Your task to perform on an android device: Clear the shopping cart on target.com. Search for "usb-a" on target.com, select the first entry, and add it to the cart. Image 0: 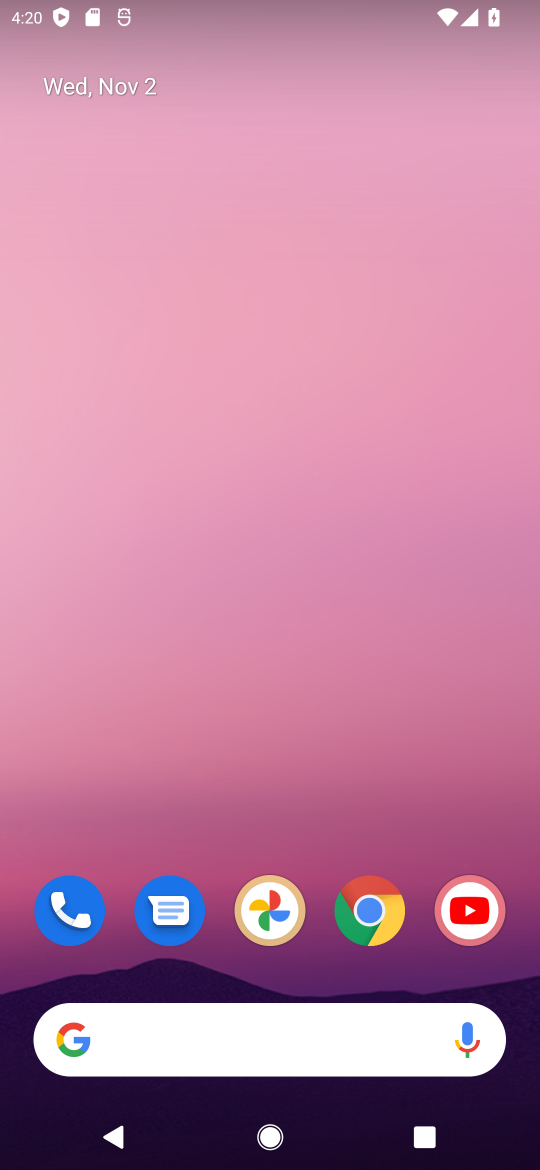
Step 0: click (371, 915)
Your task to perform on an android device: Clear the shopping cart on target.com. Search for "usb-a" on target.com, select the first entry, and add it to the cart. Image 1: 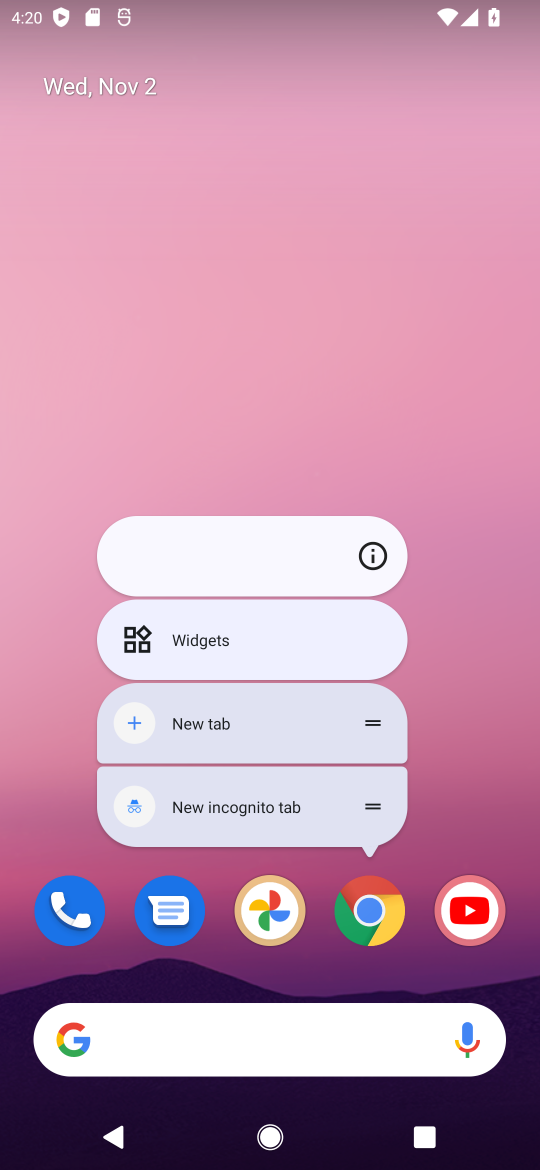
Step 1: click (373, 923)
Your task to perform on an android device: Clear the shopping cart on target.com. Search for "usb-a" on target.com, select the first entry, and add it to the cart. Image 2: 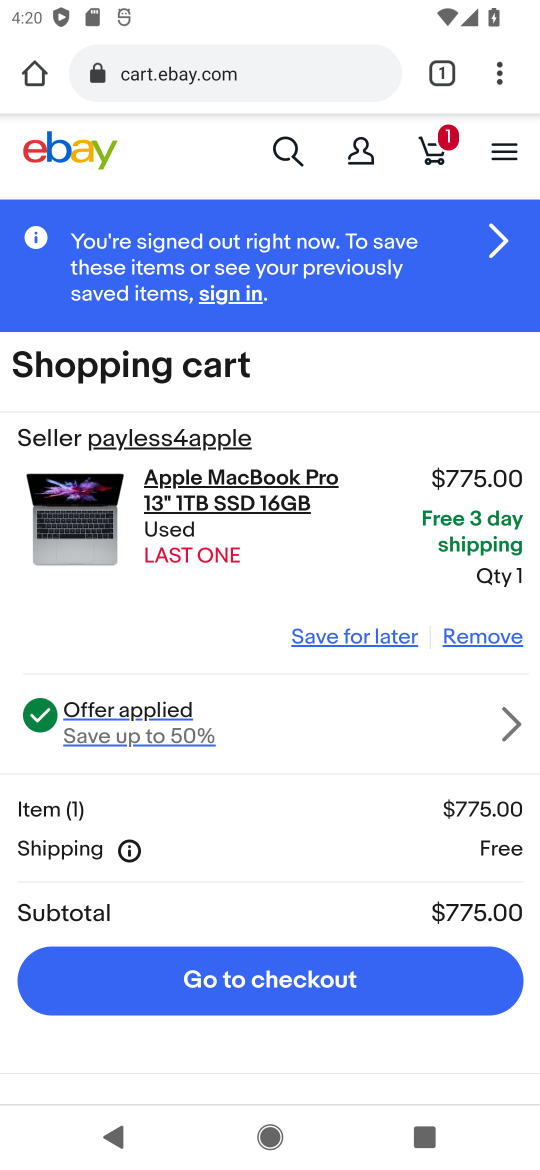
Step 2: click (299, 158)
Your task to perform on an android device: Clear the shopping cart on target.com. Search for "usb-a" on target.com, select the first entry, and add it to the cart. Image 3: 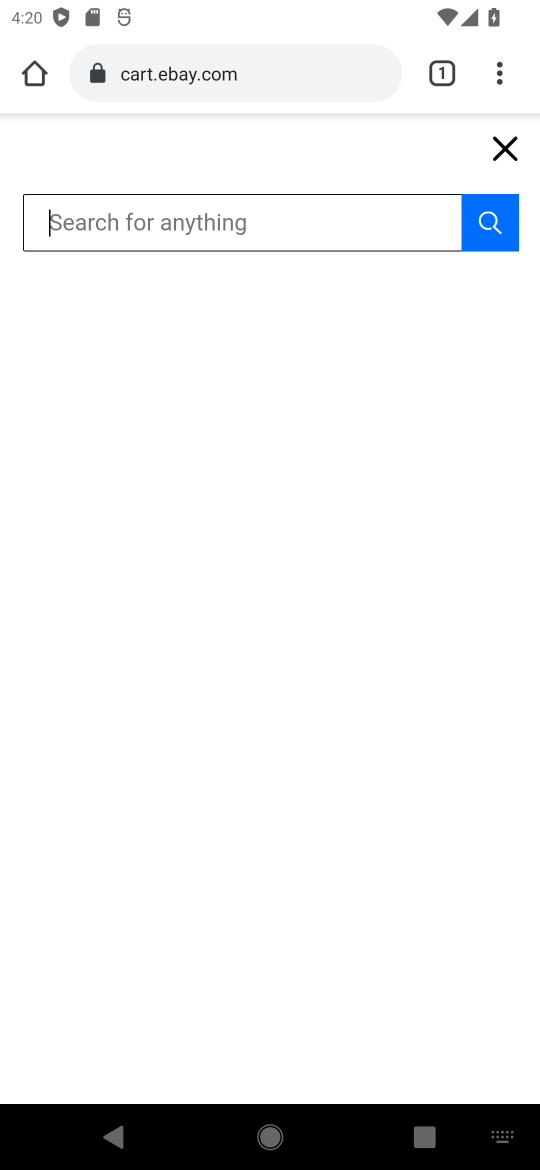
Step 3: type "target.com"
Your task to perform on an android device: Clear the shopping cart on target.com. Search for "usb-a" on target.com, select the first entry, and add it to the cart. Image 4: 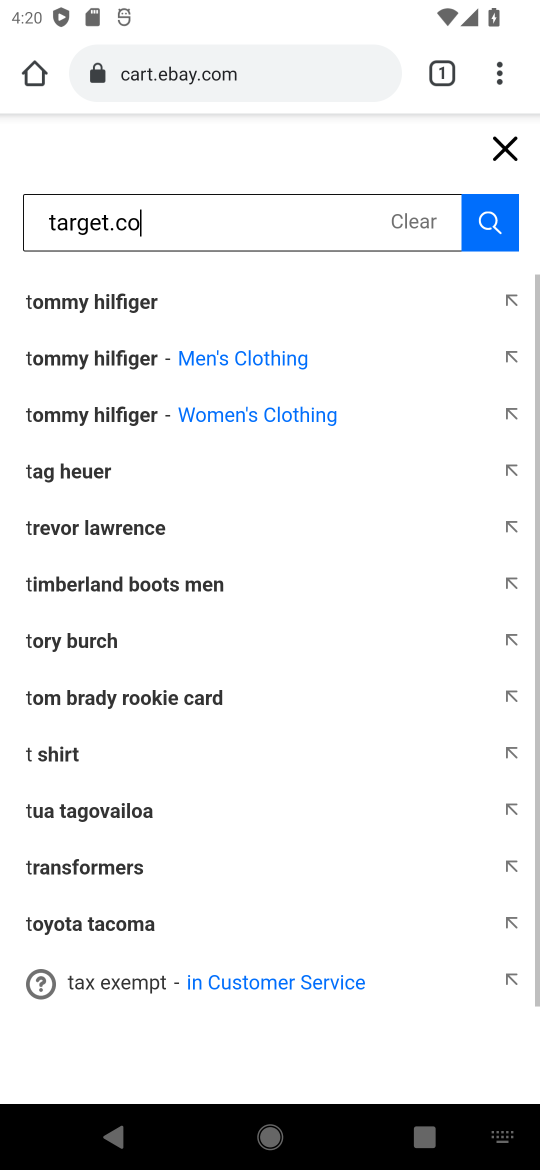
Step 4: type ""
Your task to perform on an android device: Clear the shopping cart on target.com. Search for "usb-a" on target.com, select the first entry, and add it to the cart. Image 5: 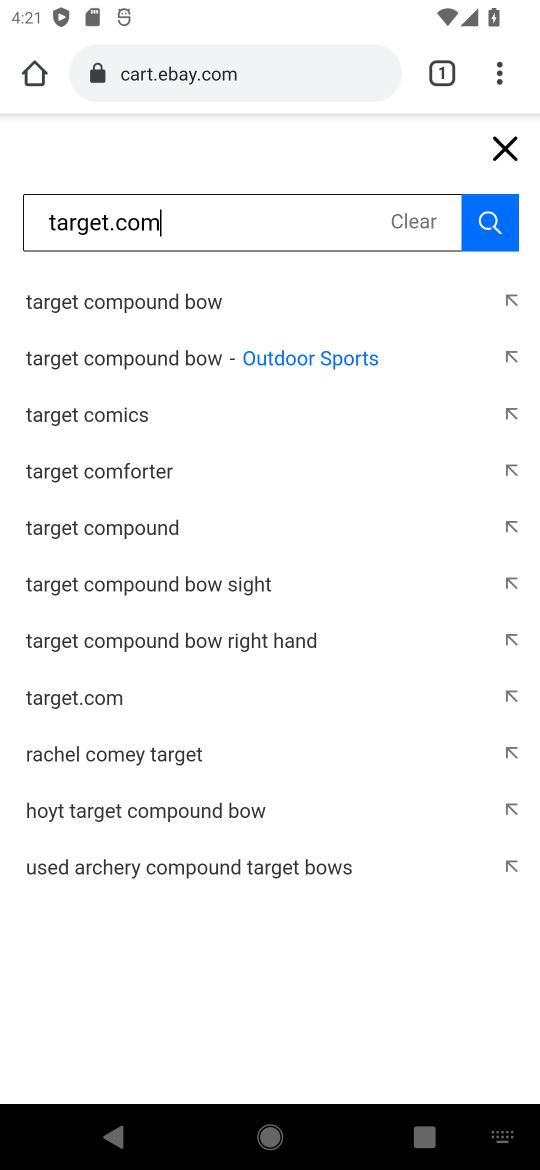
Step 5: click (494, 229)
Your task to perform on an android device: Clear the shopping cart on target.com. Search for "usb-a" on target.com, select the first entry, and add it to the cart. Image 6: 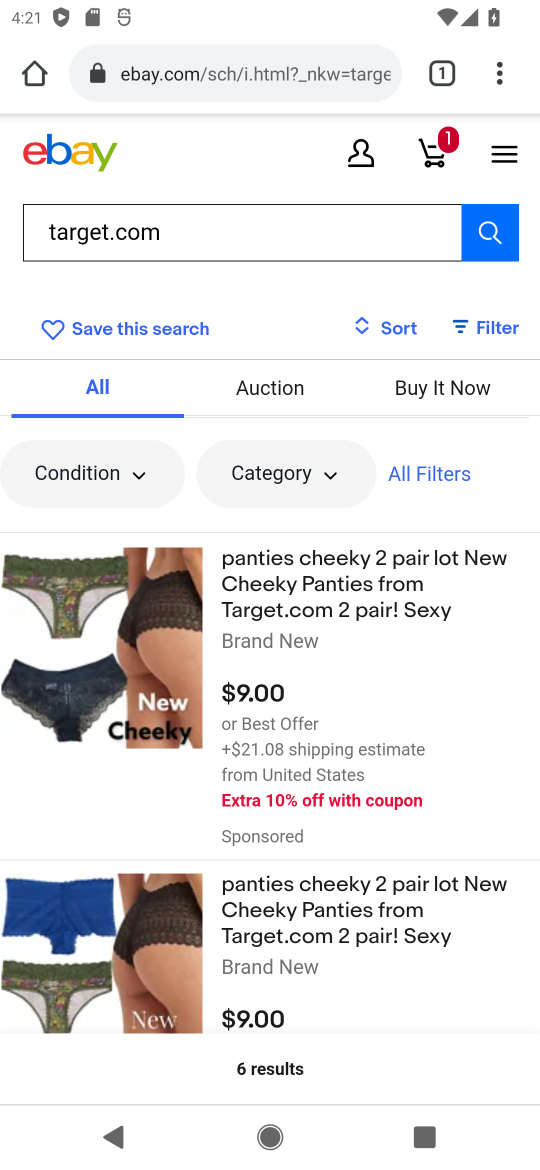
Step 6: click (206, 56)
Your task to perform on an android device: Clear the shopping cart on target.com. Search for "usb-a" on target.com, select the first entry, and add it to the cart. Image 7: 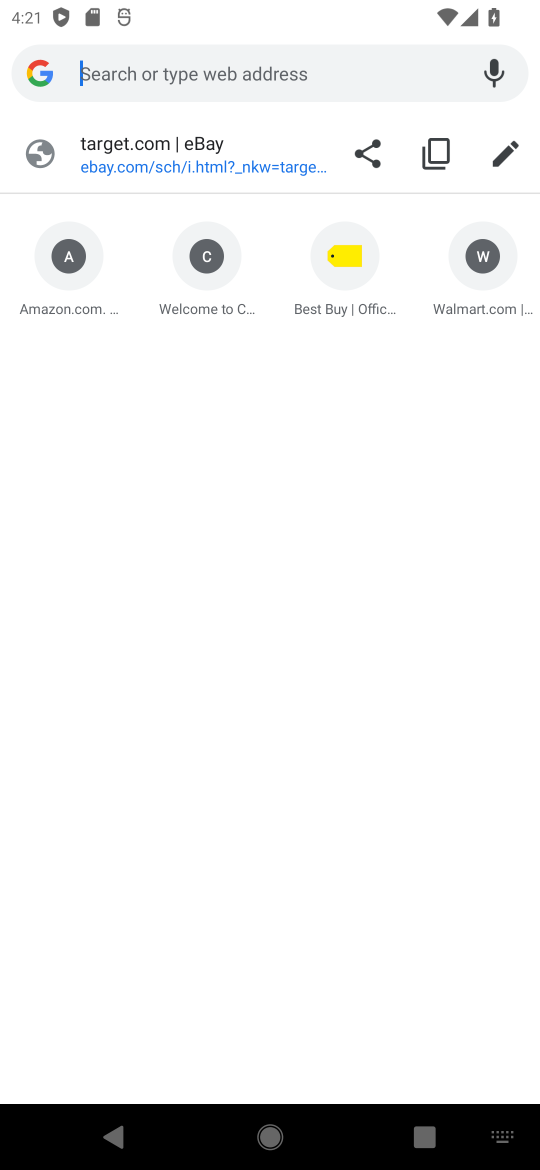
Step 7: type "target.com"
Your task to perform on an android device: Clear the shopping cart on target.com. Search for "usb-a" on target.com, select the first entry, and add it to the cart. Image 8: 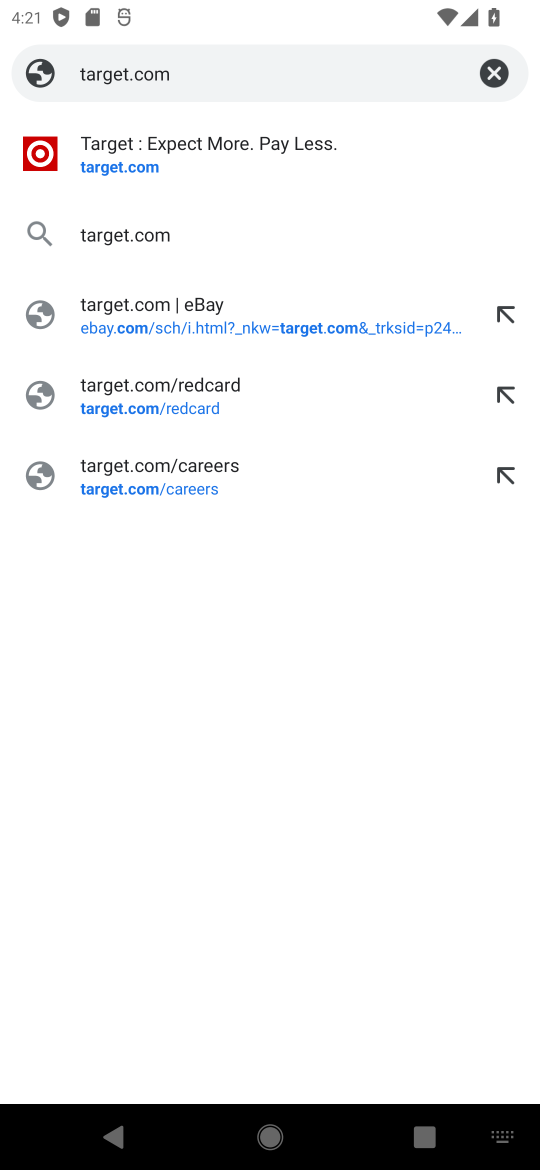
Step 8: click (342, 156)
Your task to perform on an android device: Clear the shopping cart on target.com. Search for "usb-a" on target.com, select the first entry, and add it to the cart. Image 9: 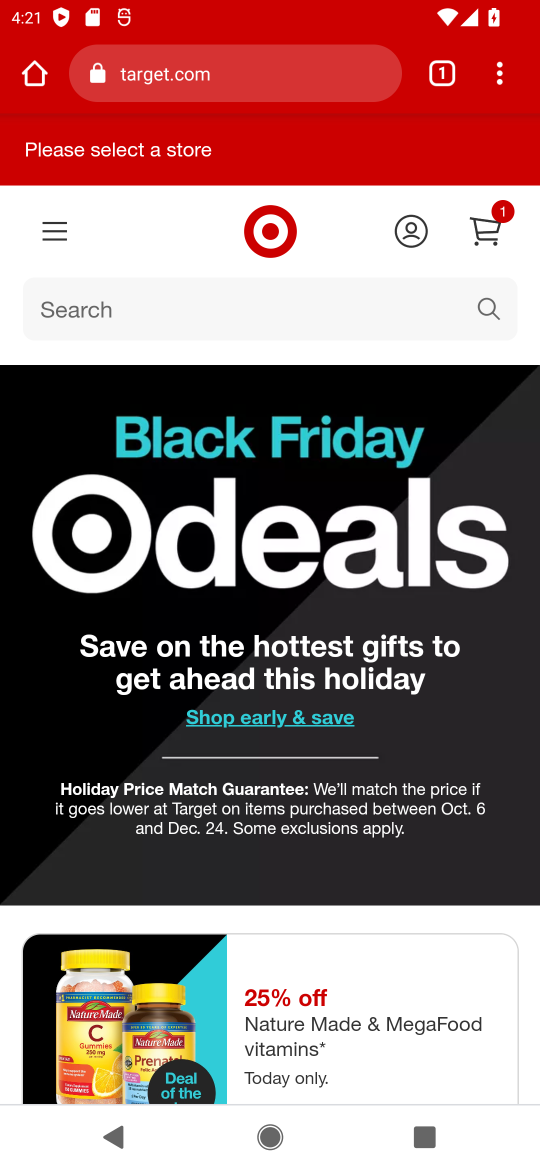
Step 9: click (483, 234)
Your task to perform on an android device: Clear the shopping cart on target.com. Search for "usb-a" on target.com, select the first entry, and add it to the cart. Image 10: 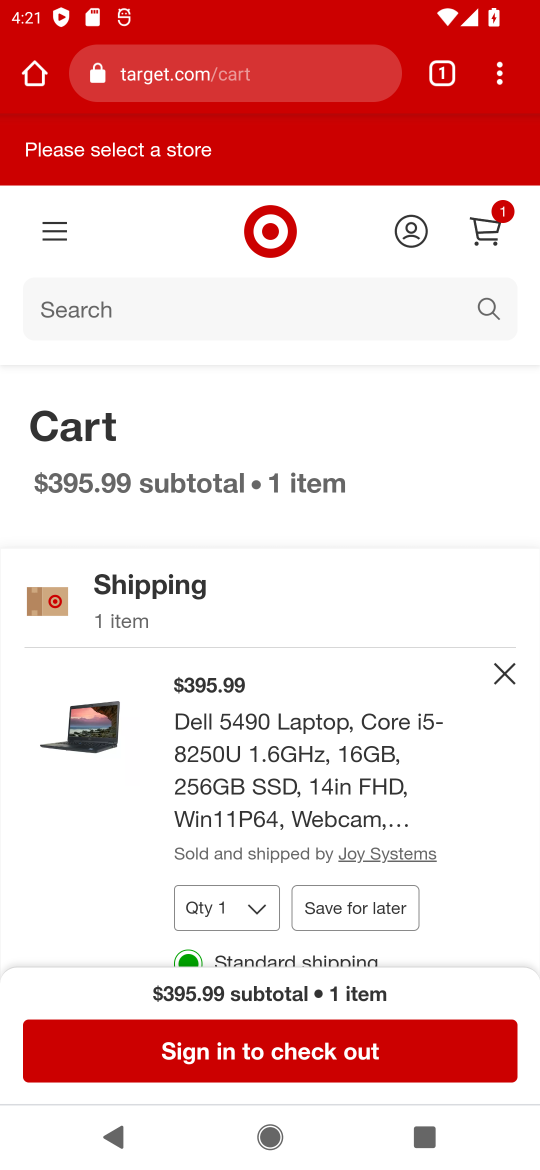
Step 10: click (218, 917)
Your task to perform on an android device: Clear the shopping cart on target.com. Search for "usb-a" on target.com, select the first entry, and add it to the cart. Image 11: 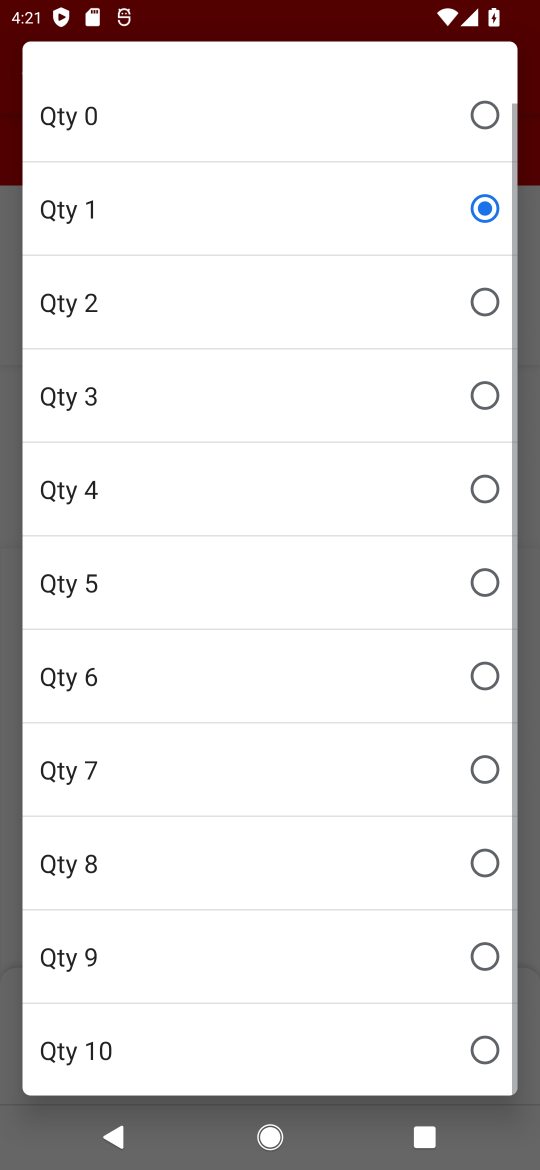
Step 11: click (148, 127)
Your task to perform on an android device: Clear the shopping cart on target.com. Search for "usb-a" on target.com, select the first entry, and add it to the cart. Image 12: 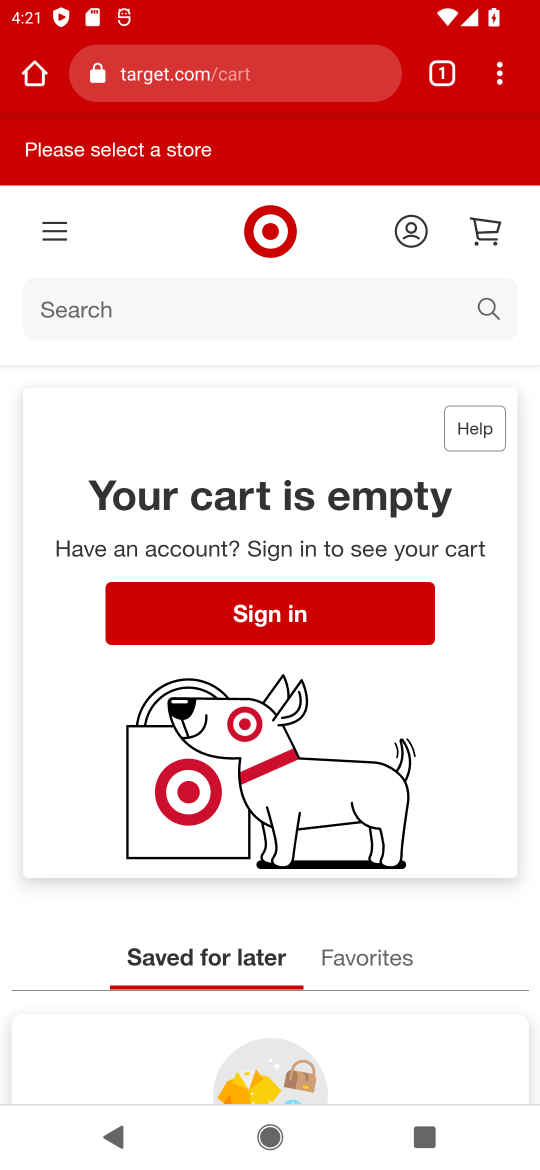
Step 12: click (376, 320)
Your task to perform on an android device: Clear the shopping cart on target.com. Search for "usb-a" on target.com, select the first entry, and add it to the cart. Image 13: 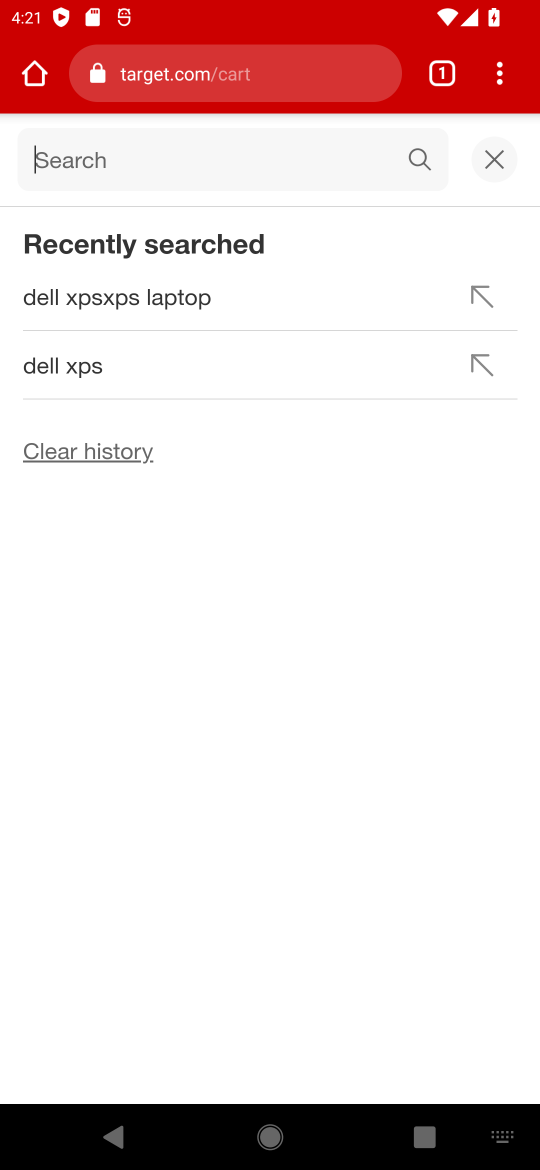
Step 13: type "usb-a"
Your task to perform on an android device: Clear the shopping cart on target.com. Search for "usb-a" on target.com, select the first entry, and add it to the cart. Image 14: 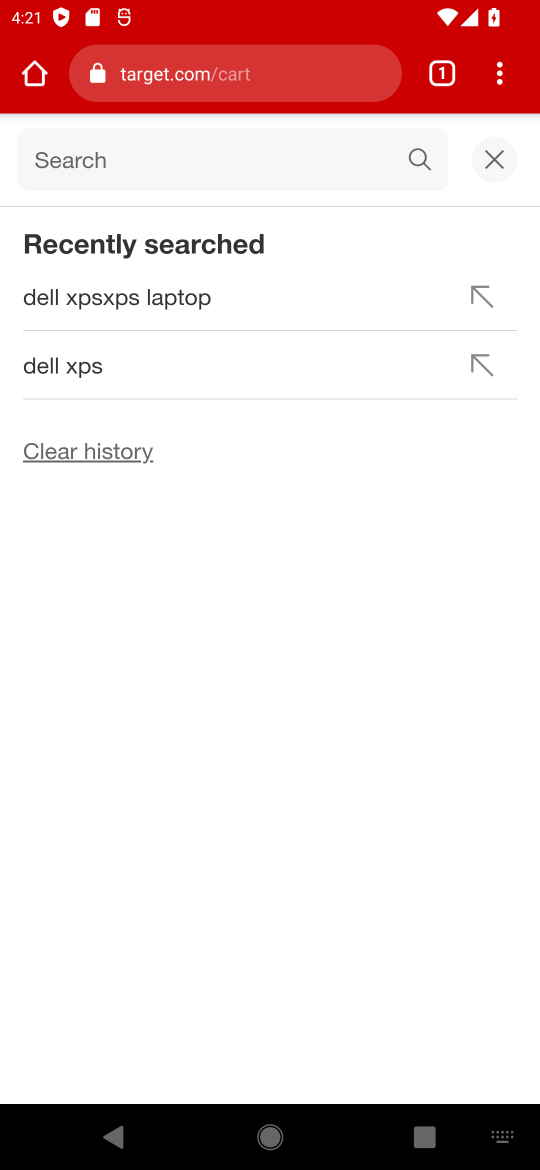
Step 14: type ""
Your task to perform on an android device: Clear the shopping cart on target.com. Search for "usb-a" on target.com, select the first entry, and add it to the cart. Image 15: 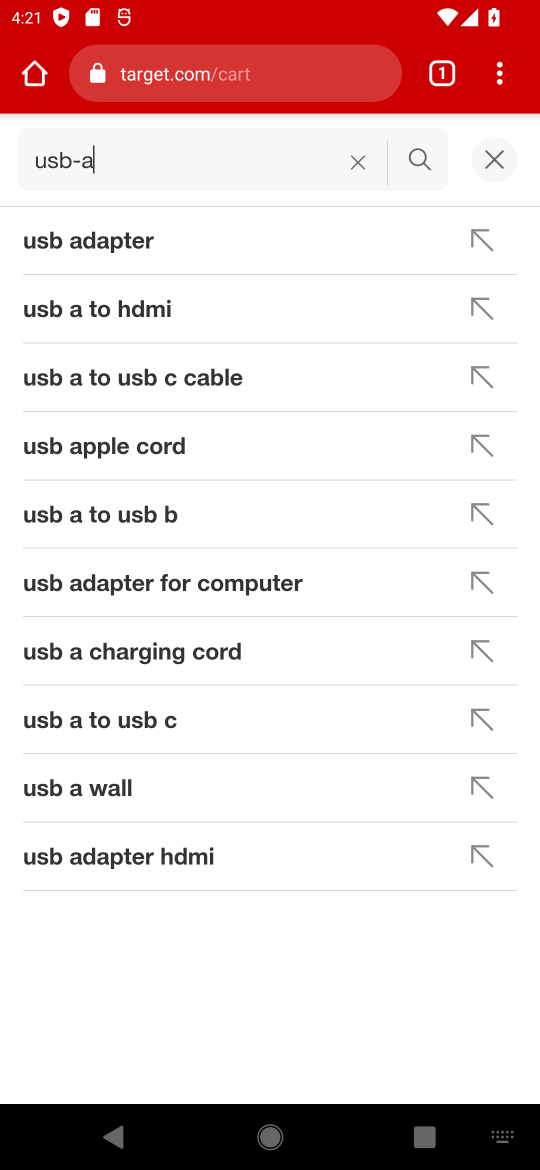
Step 15: click (422, 165)
Your task to perform on an android device: Clear the shopping cart on target.com. Search for "usb-a" on target.com, select the first entry, and add it to the cart. Image 16: 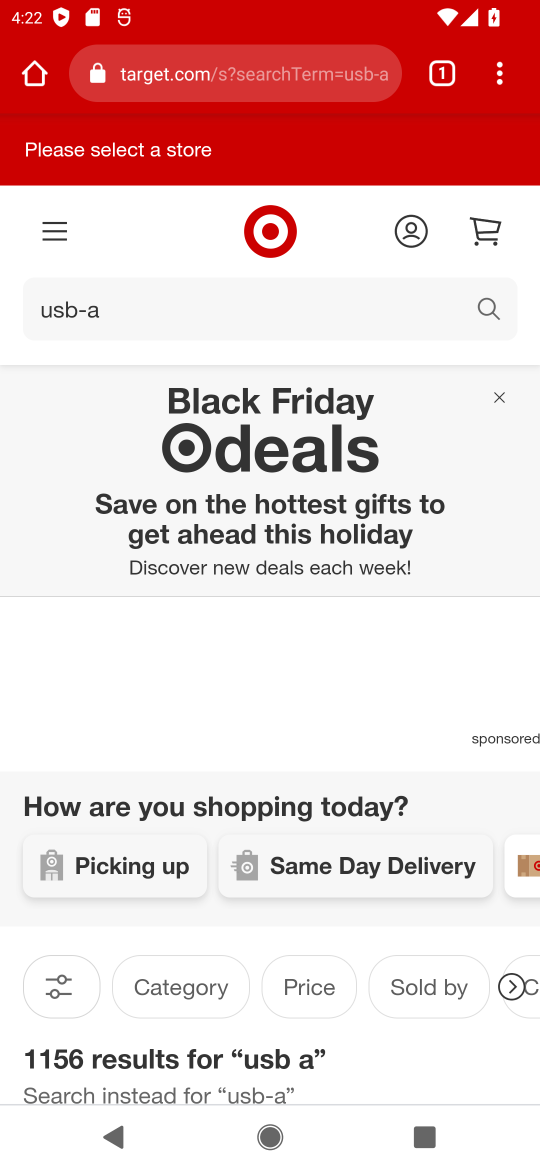
Step 16: drag from (341, 943) to (361, 310)
Your task to perform on an android device: Clear the shopping cart on target.com. Search for "usb-a" on target.com, select the first entry, and add it to the cart. Image 17: 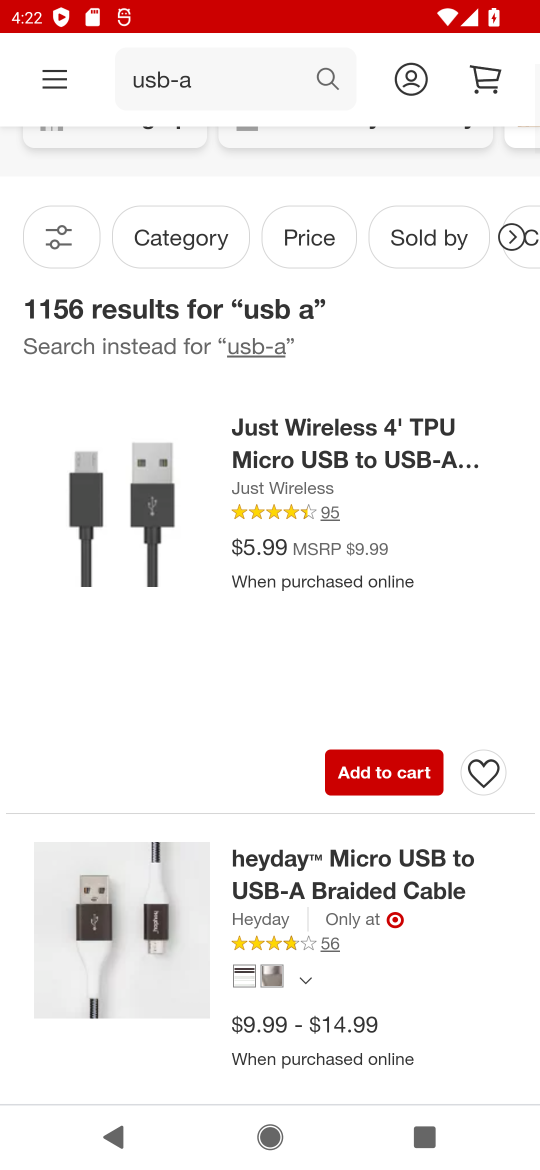
Step 17: click (358, 470)
Your task to perform on an android device: Clear the shopping cart on target.com. Search for "usb-a" on target.com, select the first entry, and add it to the cart. Image 18: 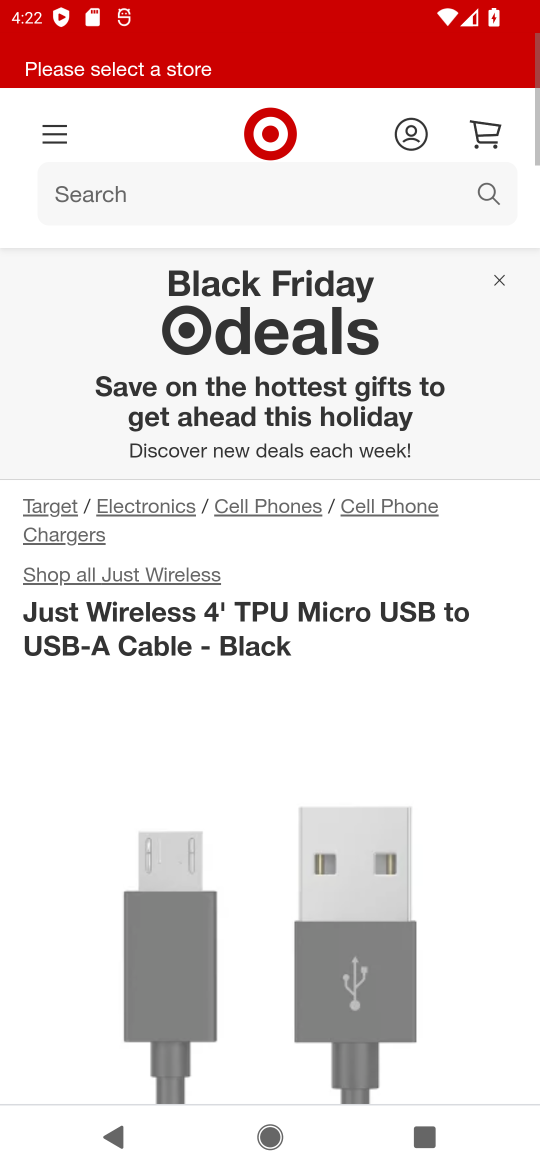
Step 18: click (404, 915)
Your task to perform on an android device: Clear the shopping cart on target.com. Search for "usb-a" on target.com, select the first entry, and add it to the cart. Image 19: 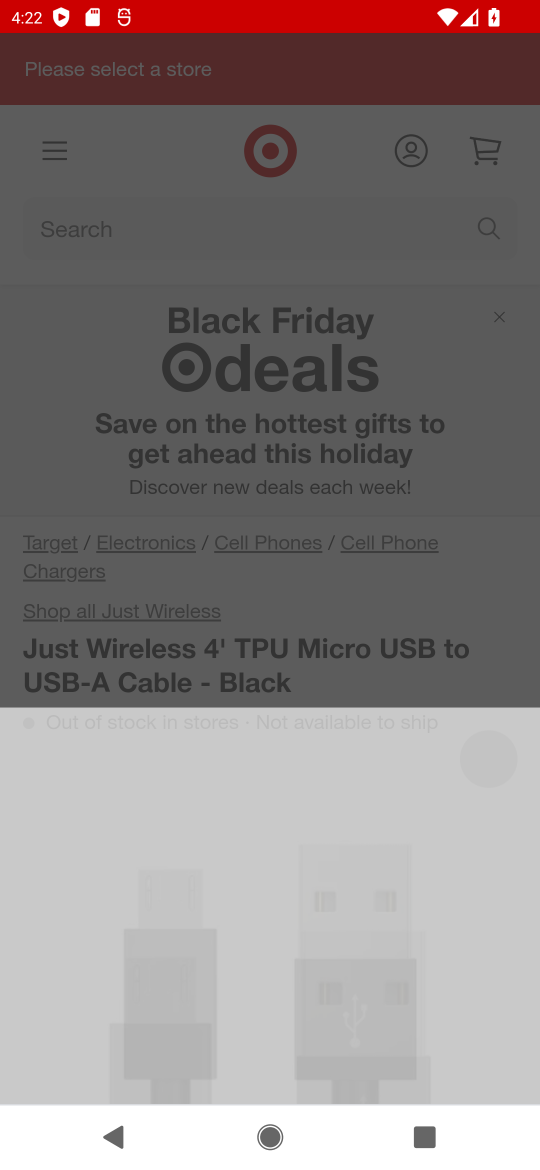
Step 19: drag from (404, 915) to (382, 383)
Your task to perform on an android device: Clear the shopping cart on target.com. Search for "usb-a" on target.com, select the first entry, and add it to the cart. Image 20: 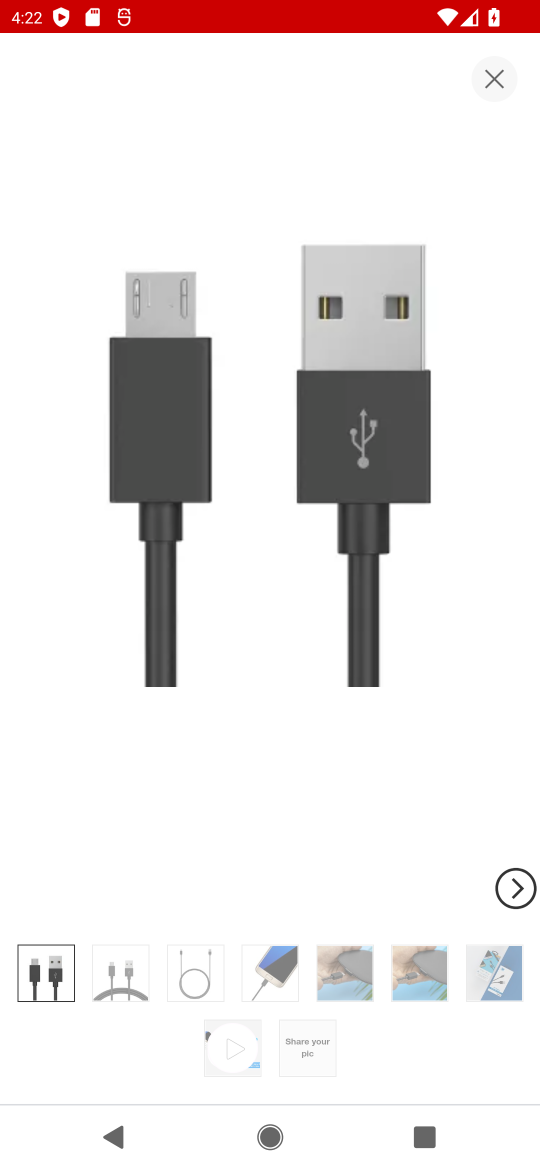
Step 20: click (488, 85)
Your task to perform on an android device: Clear the shopping cart on target.com. Search for "usb-a" on target.com, select the first entry, and add it to the cart. Image 21: 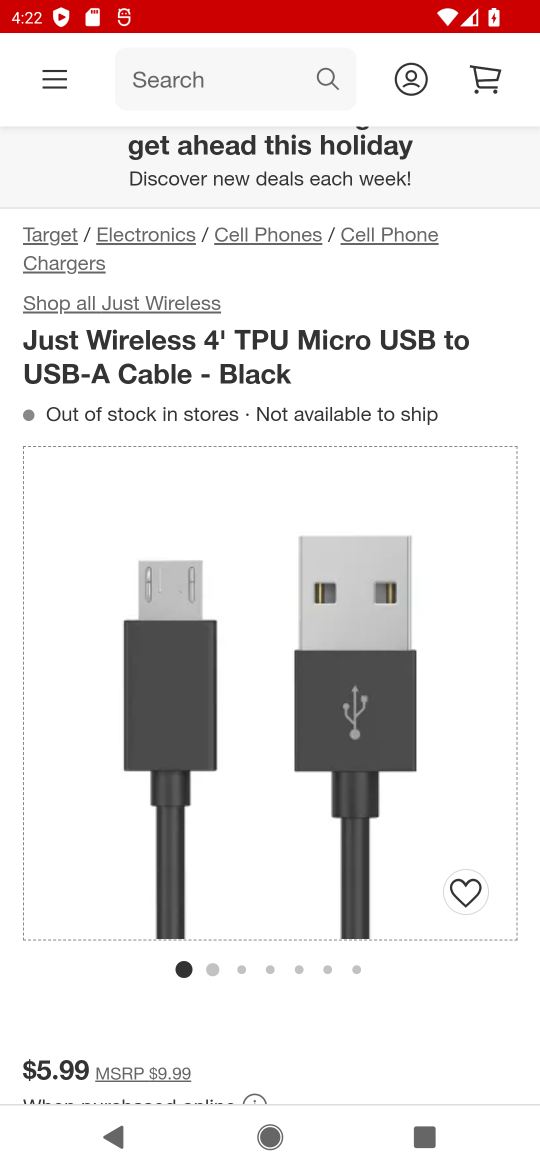
Step 21: drag from (389, 748) to (429, 209)
Your task to perform on an android device: Clear the shopping cart on target.com. Search for "usb-a" on target.com, select the first entry, and add it to the cart. Image 22: 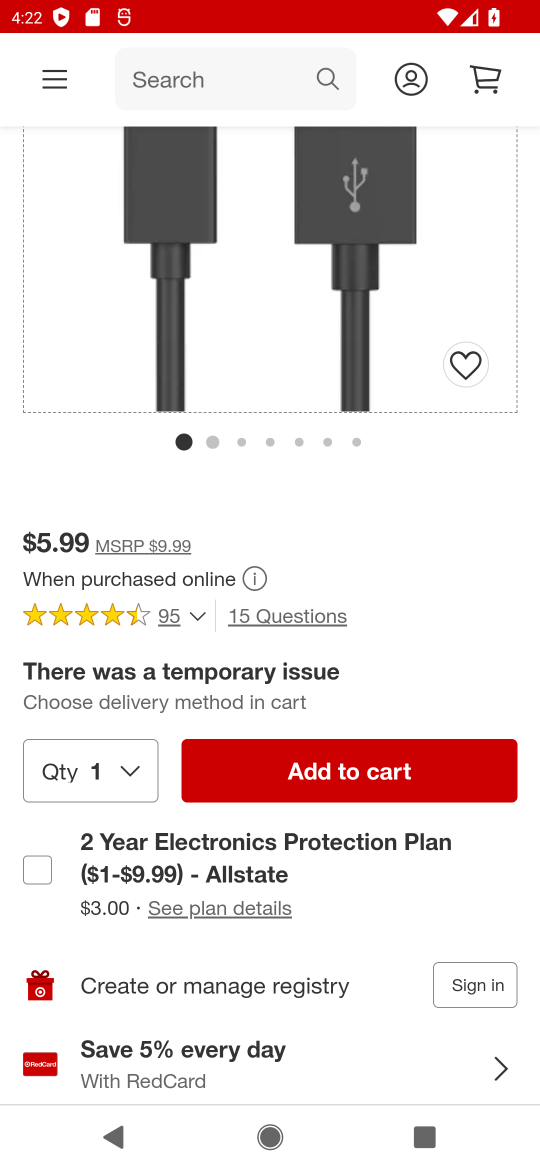
Step 22: click (450, 761)
Your task to perform on an android device: Clear the shopping cart on target.com. Search for "usb-a" on target.com, select the first entry, and add it to the cart. Image 23: 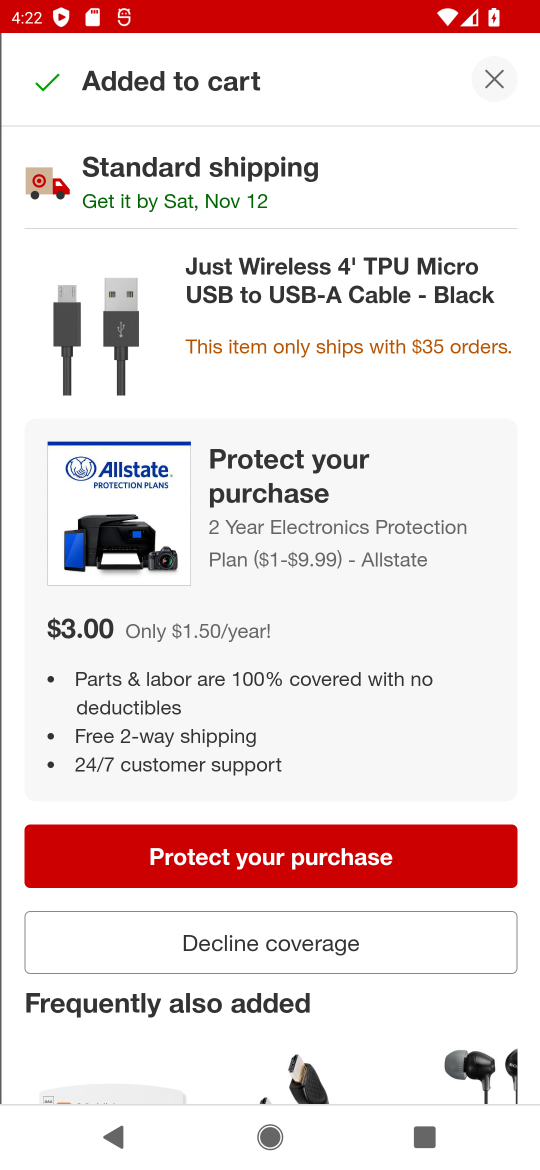
Step 23: click (283, 939)
Your task to perform on an android device: Clear the shopping cart on target.com. Search for "usb-a" on target.com, select the first entry, and add it to the cart. Image 24: 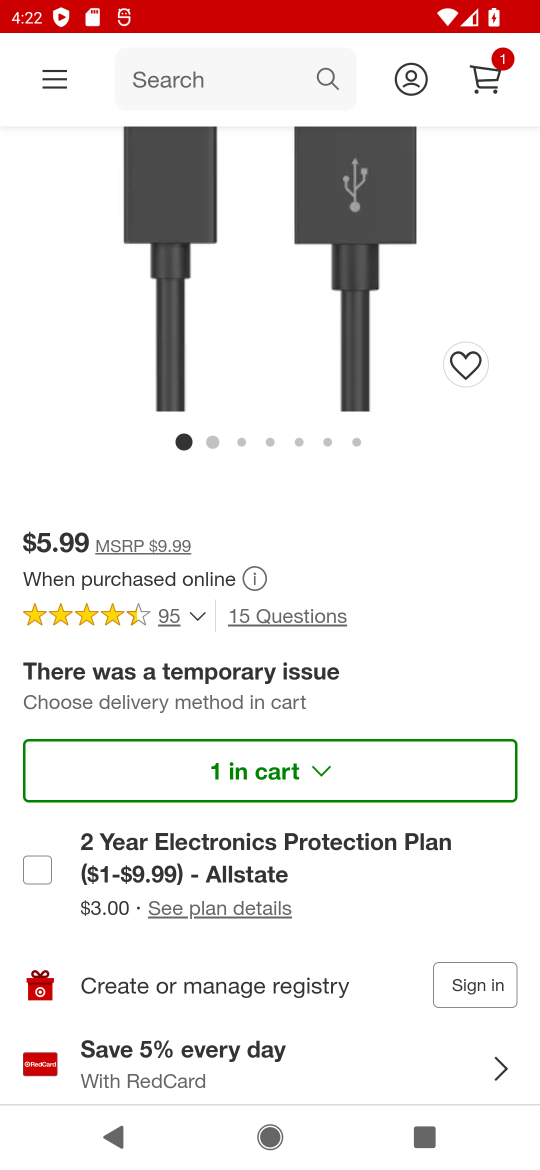
Step 24: task complete